Your task to perform on an android device: clear all cookies in the chrome app Image 0: 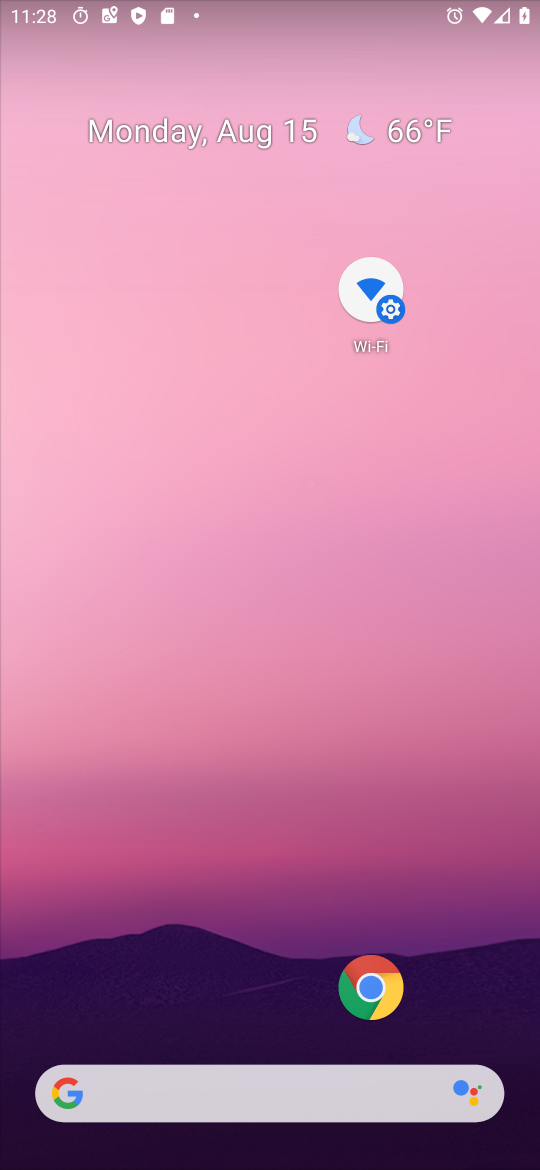
Step 0: drag from (298, 1016) to (231, 1099)
Your task to perform on an android device: clear all cookies in the chrome app Image 1: 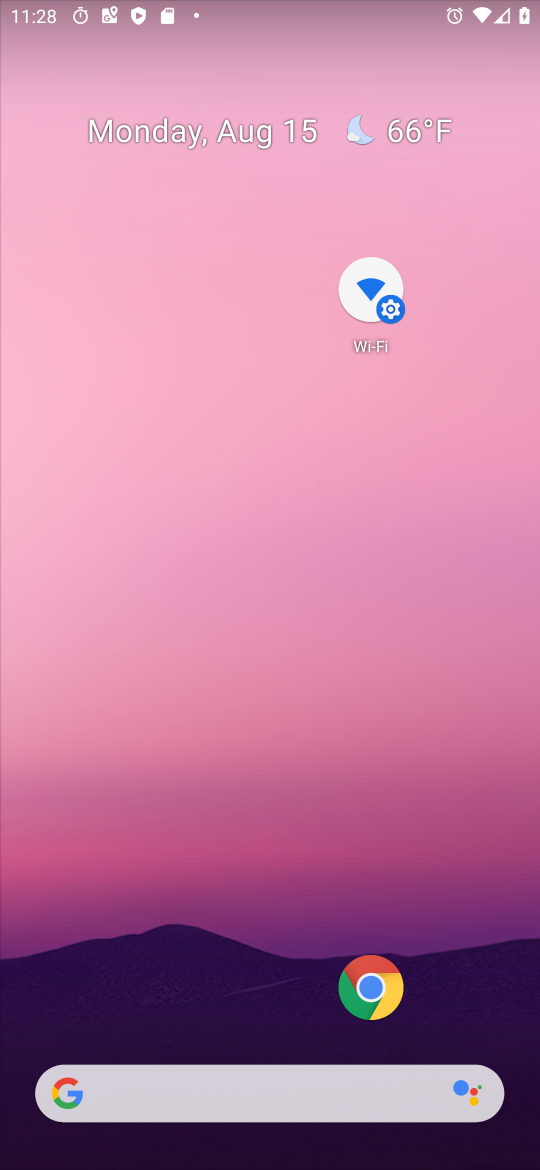
Step 1: click (155, 595)
Your task to perform on an android device: clear all cookies in the chrome app Image 2: 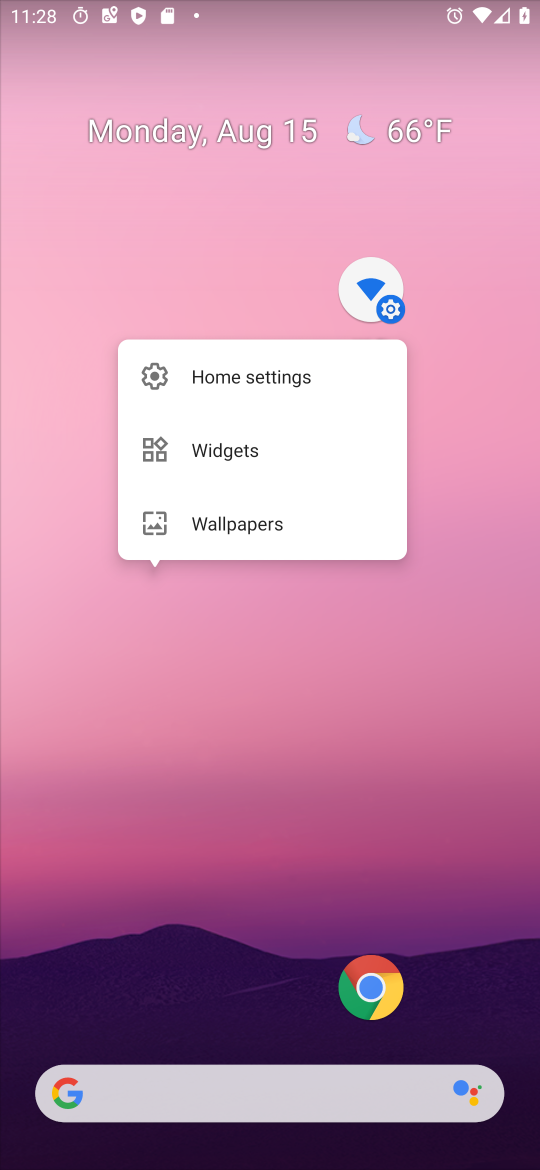
Step 2: click (373, 1014)
Your task to perform on an android device: clear all cookies in the chrome app Image 3: 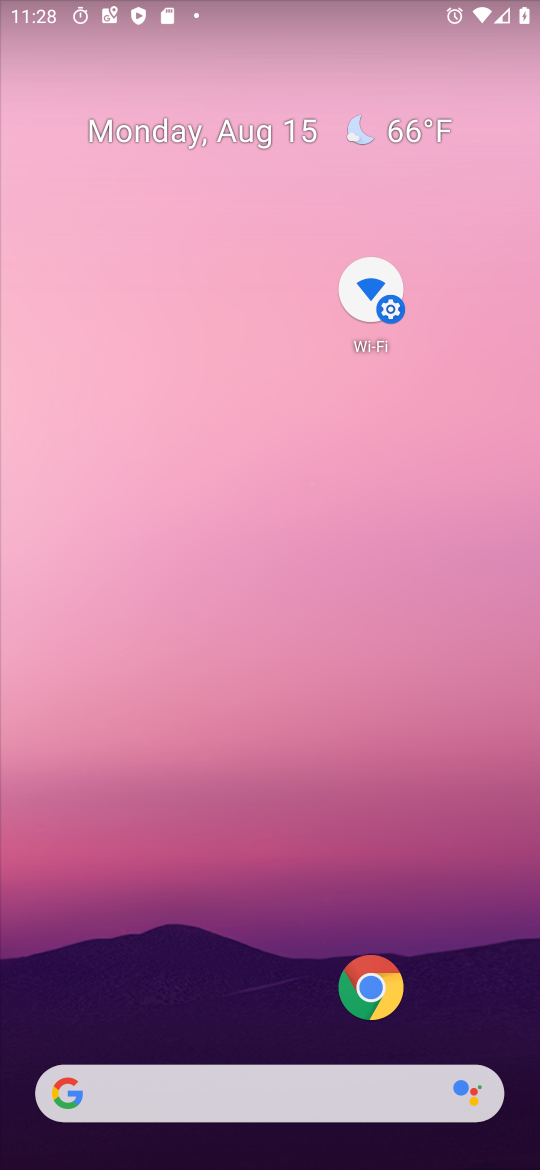
Step 3: click (366, 988)
Your task to perform on an android device: clear all cookies in the chrome app Image 4: 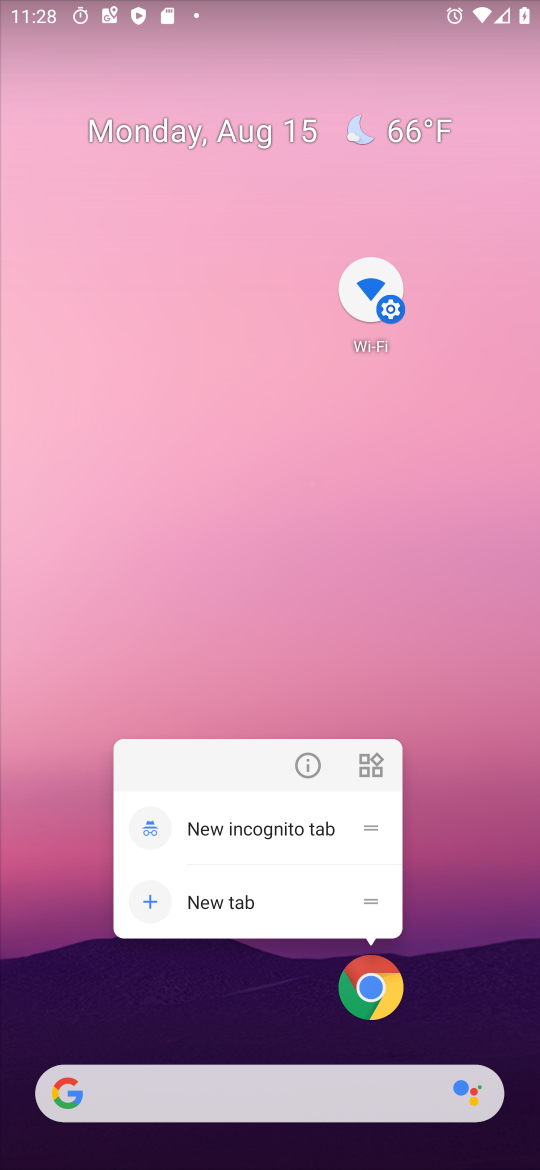
Step 4: click (391, 1012)
Your task to perform on an android device: clear all cookies in the chrome app Image 5: 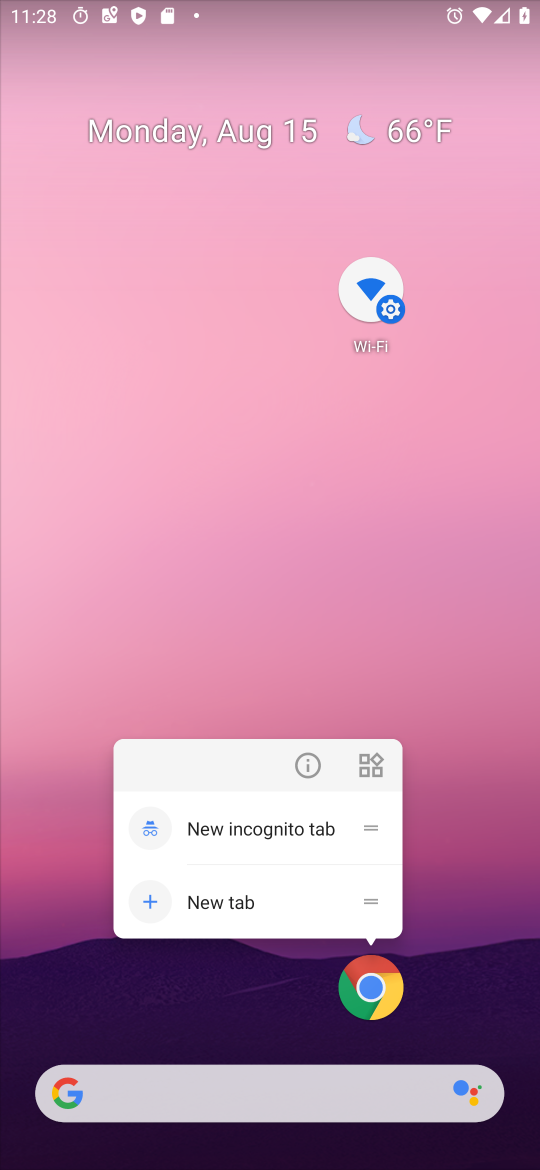
Step 5: click (386, 1010)
Your task to perform on an android device: clear all cookies in the chrome app Image 6: 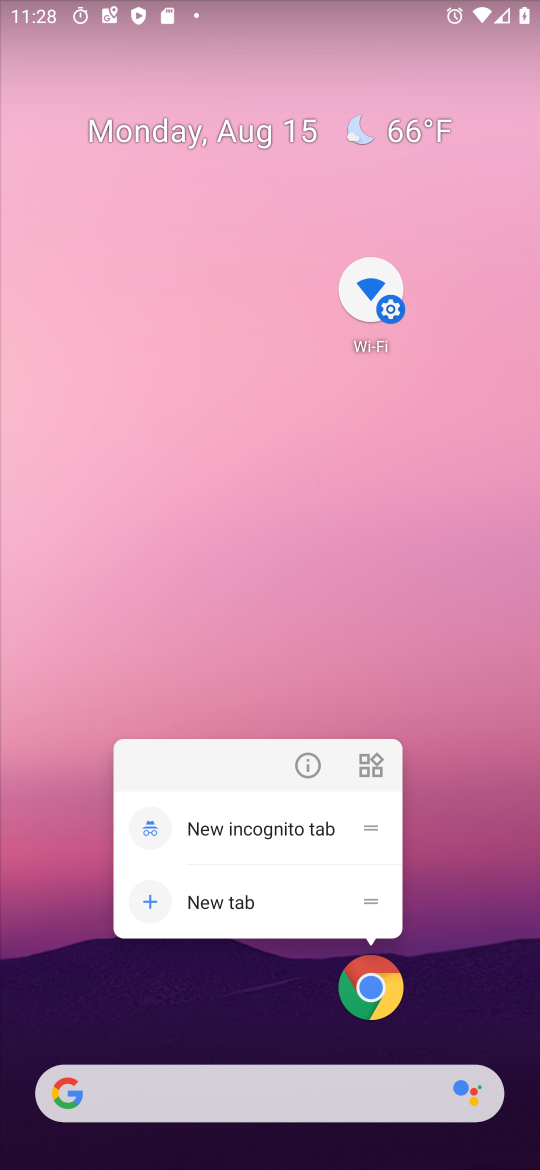
Step 6: click (379, 1010)
Your task to perform on an android device: clear all cookies in the chrome app Image 7: 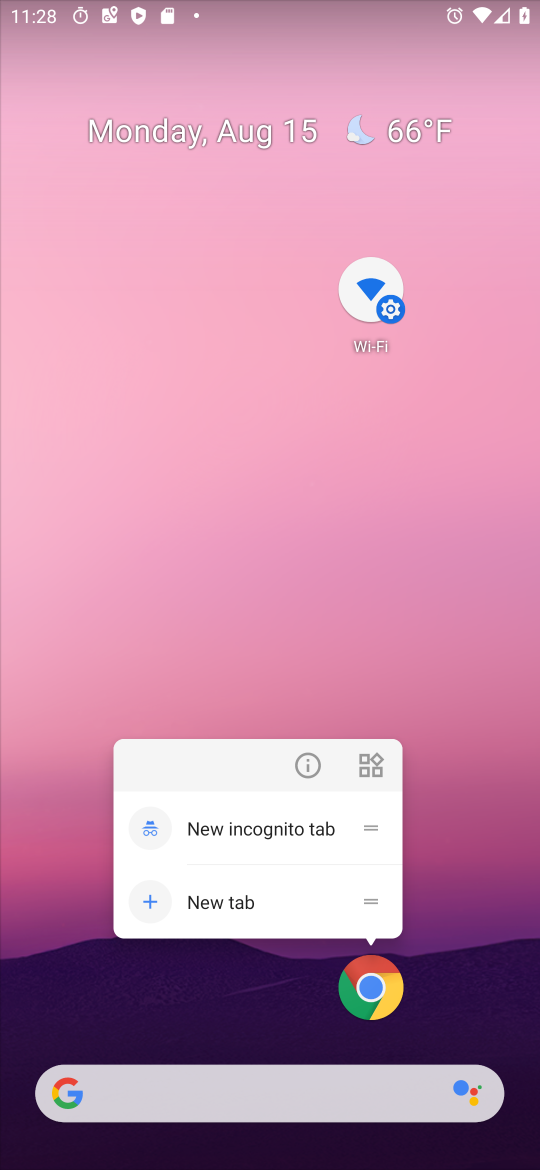
Step 7: click (345, 1001)
Your task to perform on an android device: clear all cookies in the chrome app Image 8: 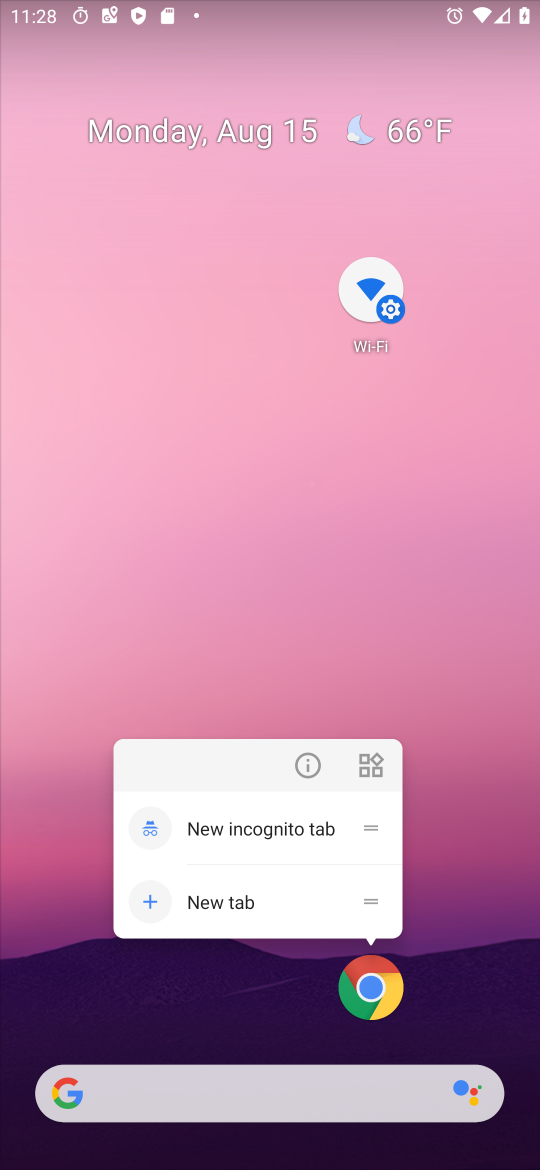
Step 8: click (364, 978)
Your task to perform on an android device: clear all cookies in the chrome app Image 9: 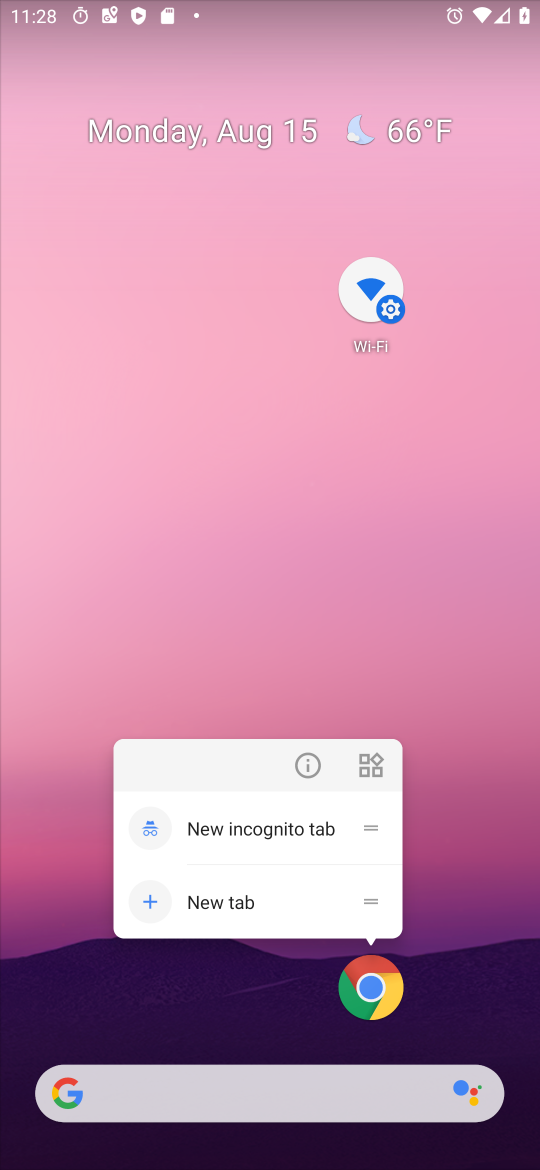
Step 9: click (373, 993)
Your task to perform on an android device: clear all cookies in the chrome app Image 10: 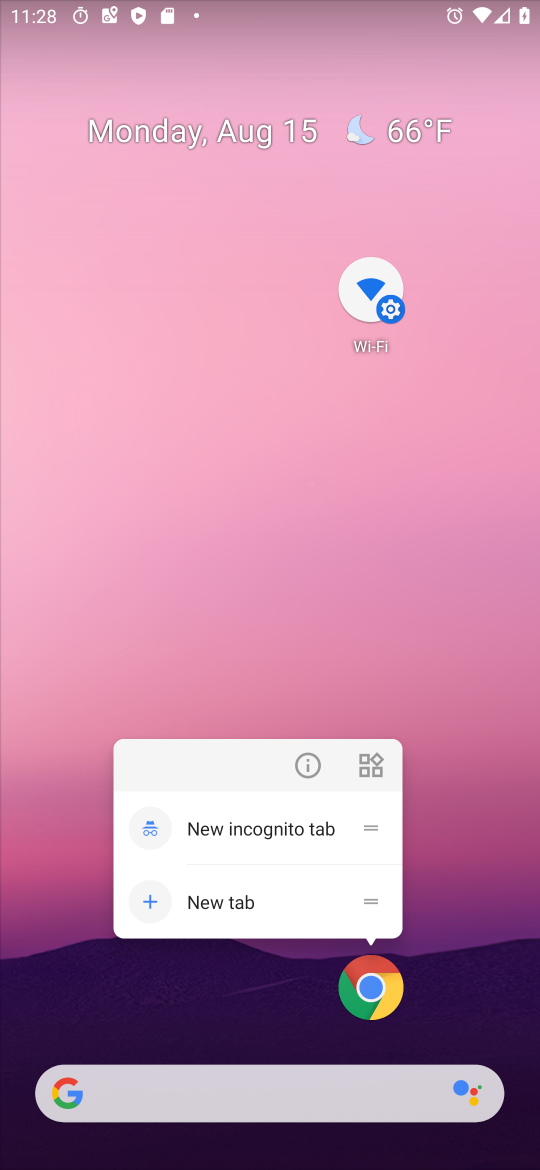
Step 10: click (377, 1013)
Your task to perform on an android device: clear all cookies in the chrome app Image 11: 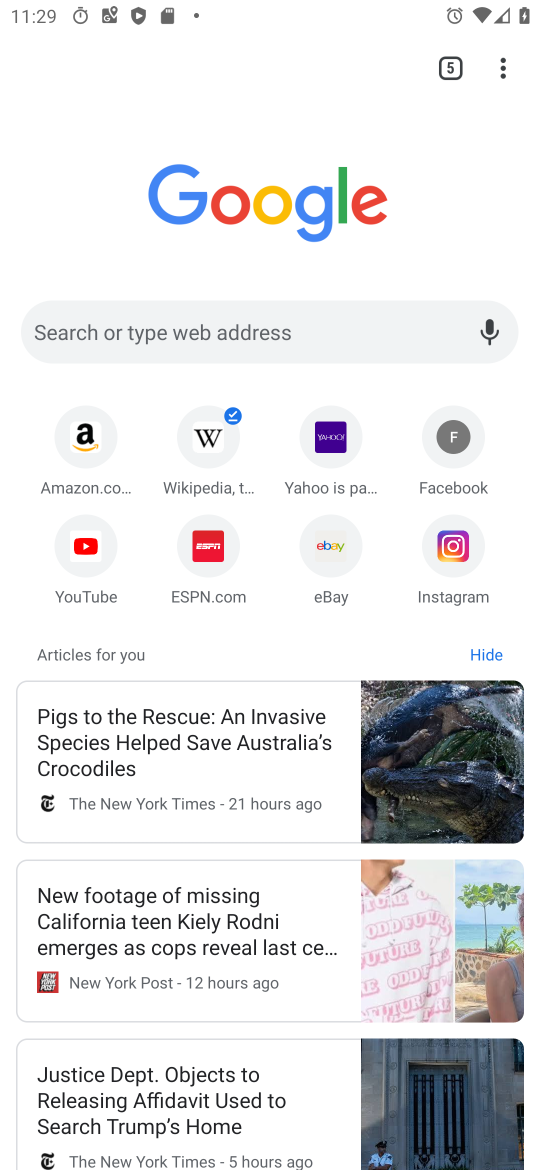
Step 11: click (510, 75)
Your task to perform on an android device: clear all cookies in the chrome app Image 12: 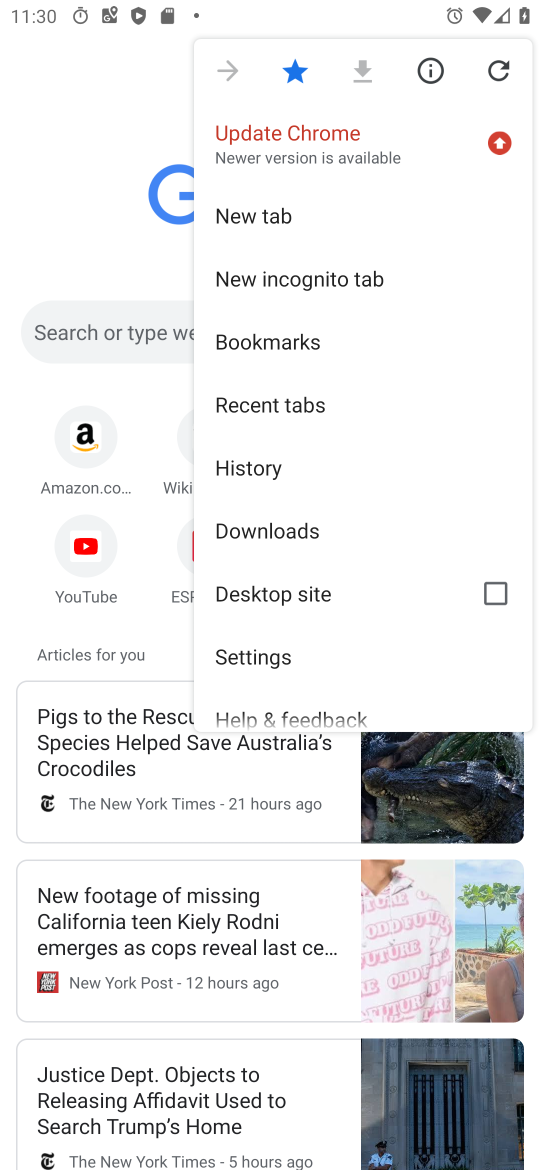
Step 12: click (271, 647)
Your task to perform on an android device: clear all cookies in the chrome app Image 13: 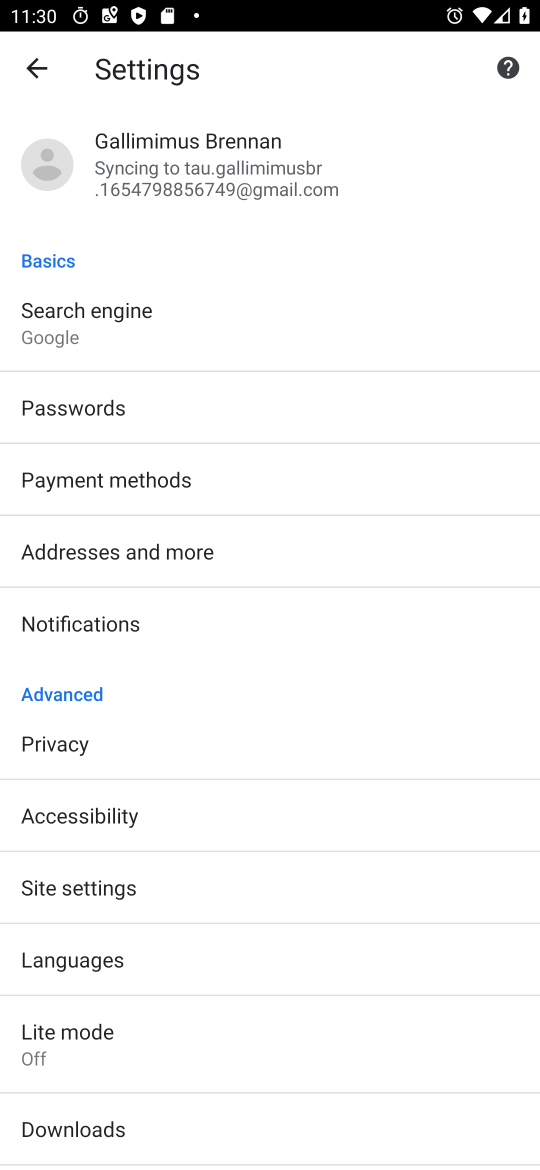
Step 13: drag from (136, 979) to (64, 217)
Your task to perform on an android device: clear all cookies in the chrome app Image 14: 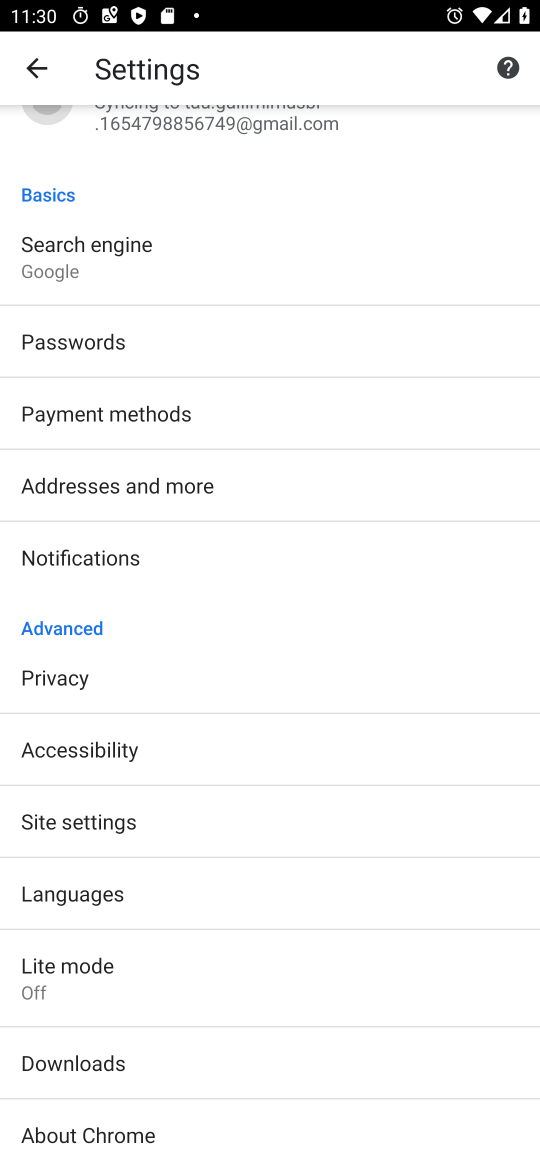
Step 14: click (45, 677)
Your task to perform on an android device: clear all cookies in the chrome app Image 15: 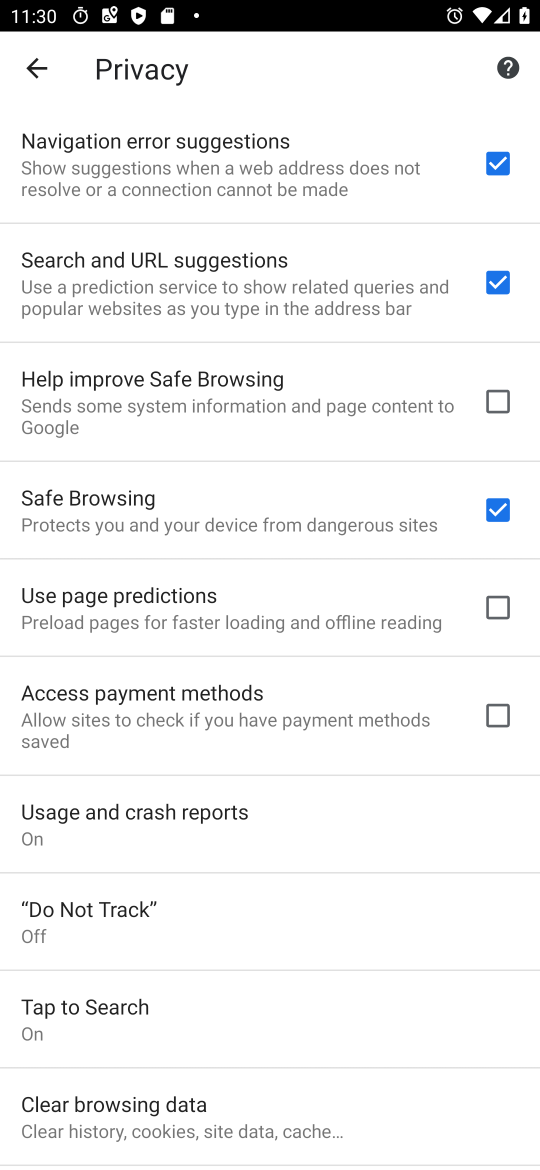
Step 15: click (208, 1109)
Your task to perform on an android device: clear all cookies in the chrome app Image 16: 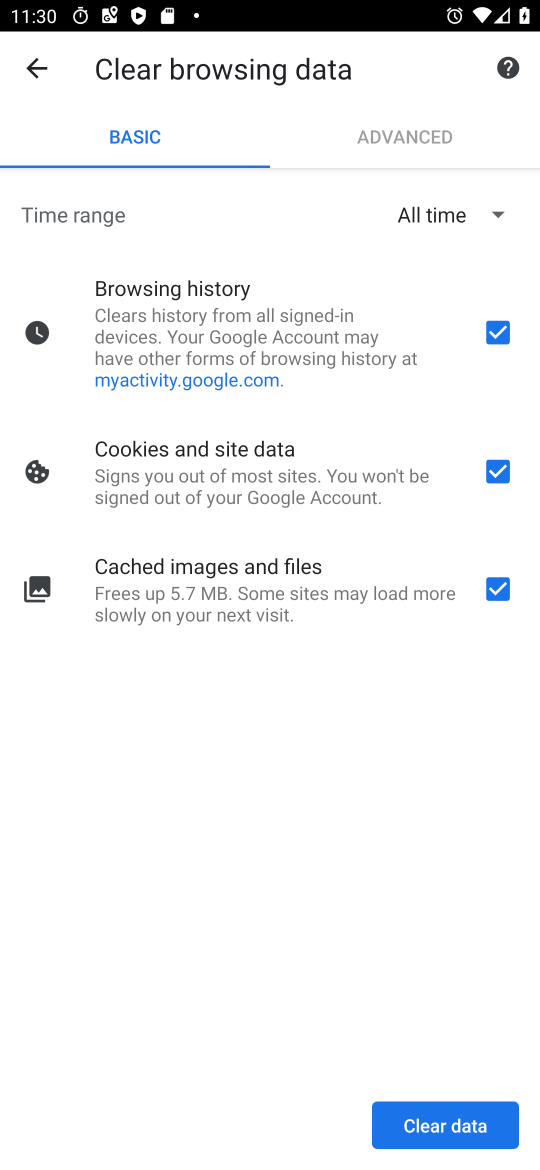
Step 16: click (472, 1114)
Your task to perform on an android device: clear all cookies in the chrome app Image 17: 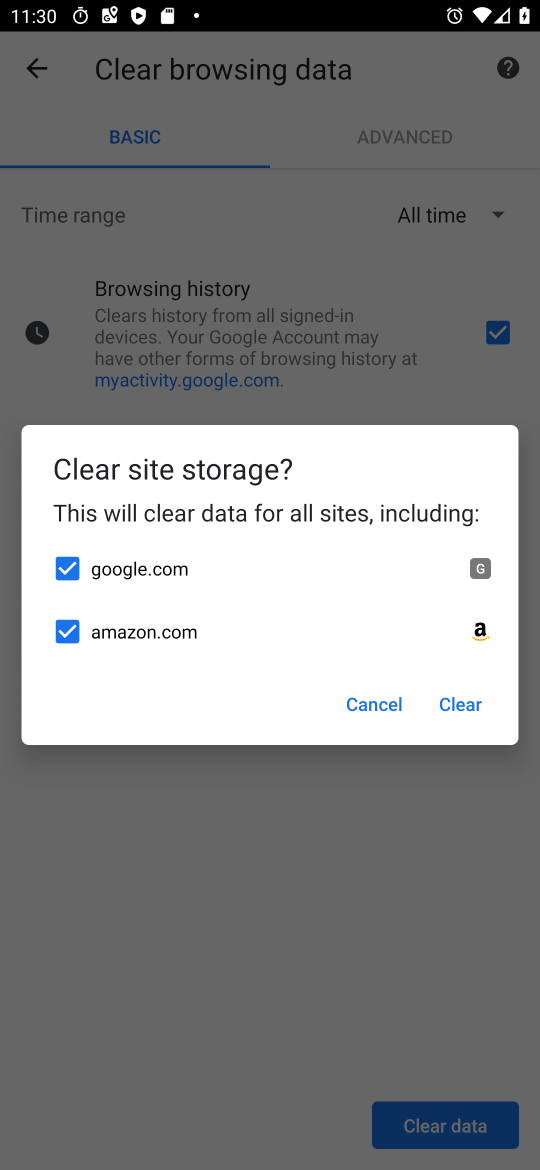
Step 17: click (446, 688)
Your task to perform on an android device: clear all cookies in the chrome app Image 18: 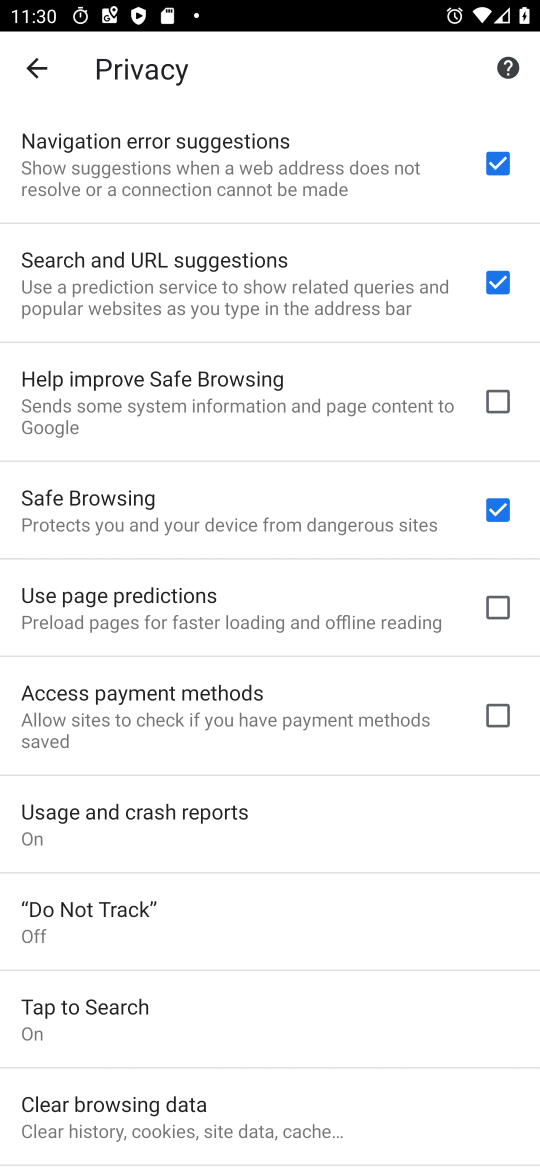
Step 18: task complete